Your task to perform on an android device: uninstall "Venmo" Image 0: 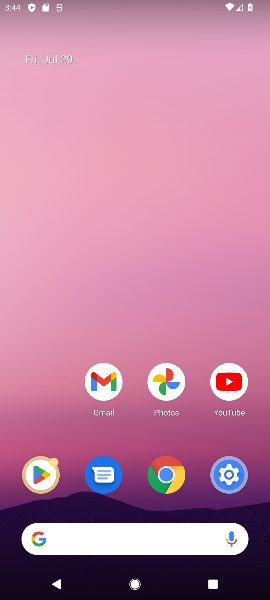
Step 0: click (47, 475)
Your task to perform on an android device: uninstall "Venmo" Image 1: 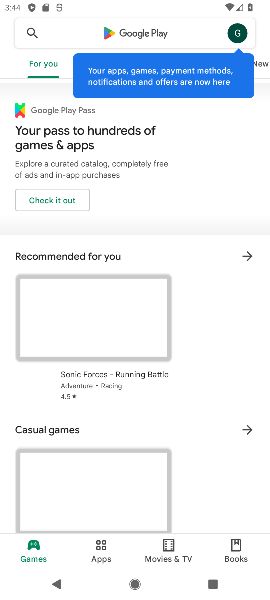
Step 1: click (69, 32)
Your task to perform on an android device: uninstall "Venmo" Image 2: 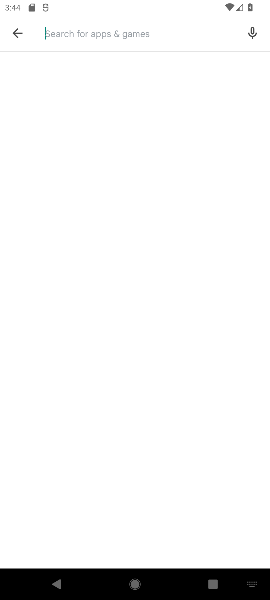
Step 2: type "Venmo""
Your task to perform on an android device: uninstall "Venmo" Image 3: 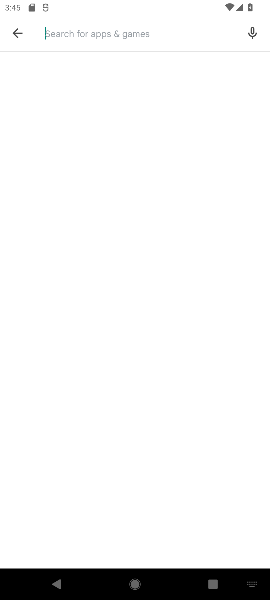
Step 3: type "Venmo""
Your task to perform on an android device: uninstall "Venmo" Image 4: 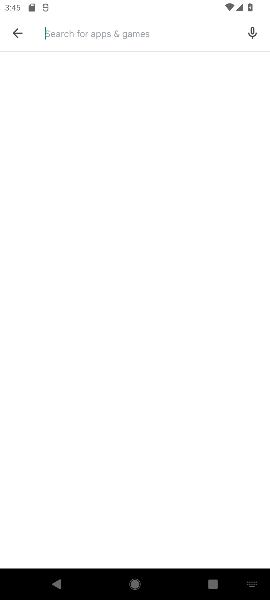
Step 4: type ""
Your task to perform on an android device: uninstall "Venmo" Image 5: 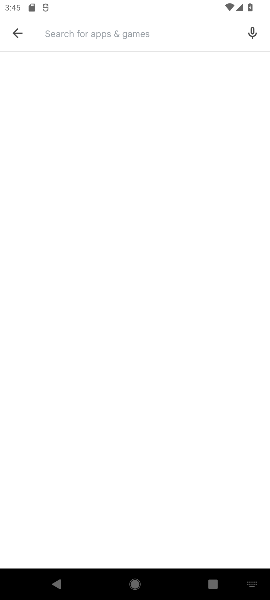
Step 5: click (79, 36)
Your task to perform on an android device: uninstall "Venmo" Image 6: 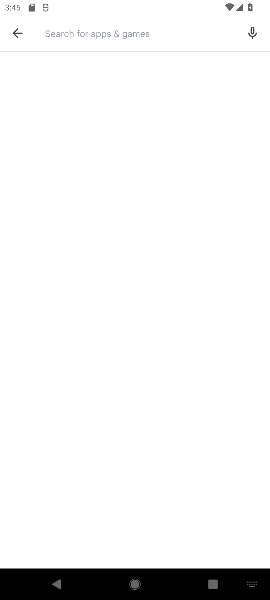
Step 6: type "Venmo"
Your task to perform on an android device: uninstall "Venmo" Image 7: 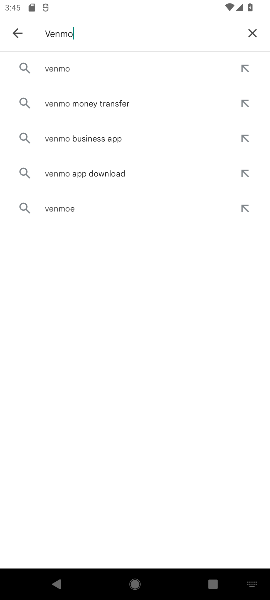
Step 7: click (54, 64)
Your task to perform on an android device: uninstall "Venmo" Image 8: 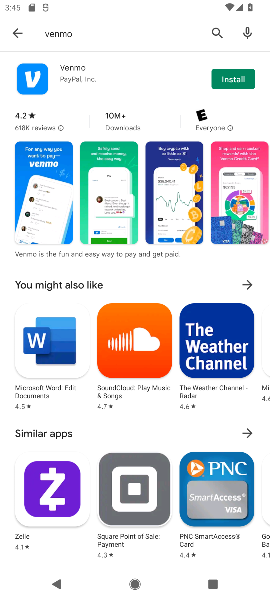
Step 8: task complete